Your task to perform on an android device: Search for hotels in Sydney Image 0: 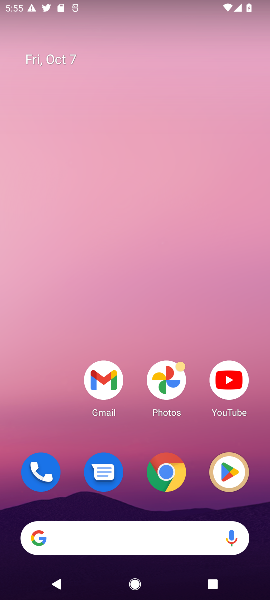
Step 0: click (152, 468)
Your task to perform on an android device: Search for hotels in Sydney Image 1: 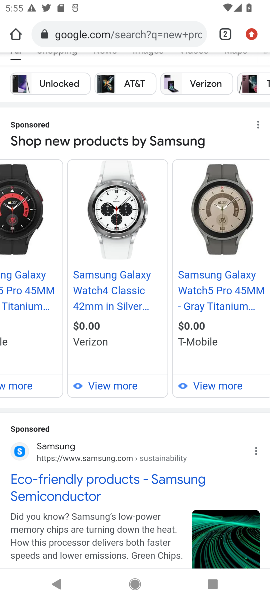
Step 1: click (154, 36)
Your task to perform on an android device: Search for hotels in Sydney Image 2: 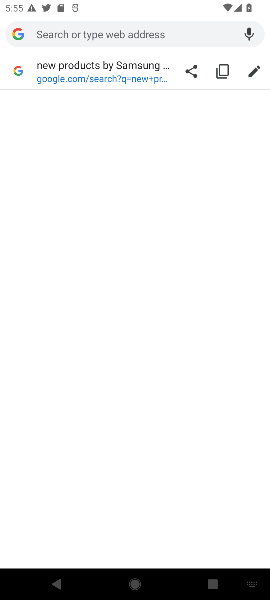
Step 2: type "hotels in Sydney"
Your task to perform on an android device: Search for hotels in Sydney Image 3: 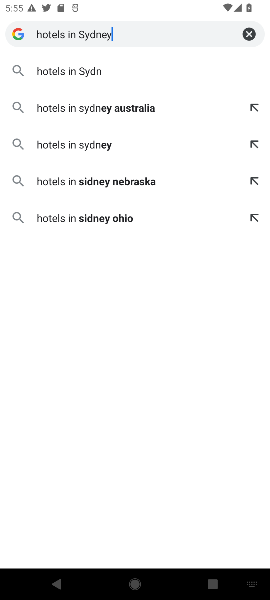
Step 3: type ""
Your task to perform on an android device: Search for hotels in Sydney Image 4: 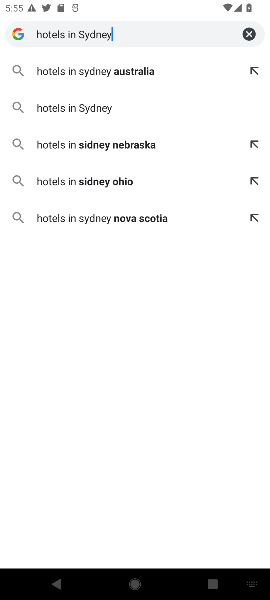
Step 4: press enter
Your task to perform on an android device: Search for hotels in Sydney Image 5: 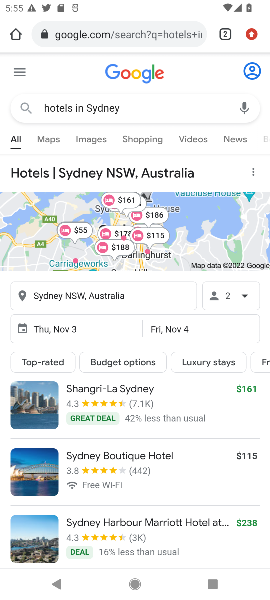
Step 5: drag from (186, 392) to (188, 239)
Your task to perform on an android device: Search for hotels in Sydney Image 6: 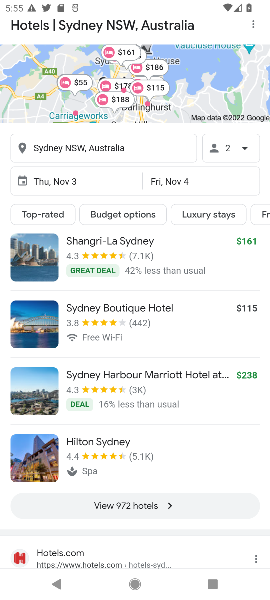
Step 6: click (135, 506)
Your task to perform on an android device: Search for hotels in Sydney Image 7: 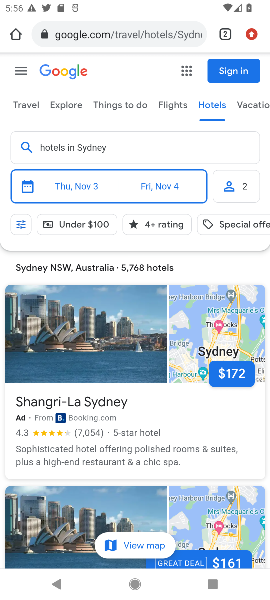
Step 7: task complete